Your task to perform on an android device: turn off picture-in-picture Image 0: 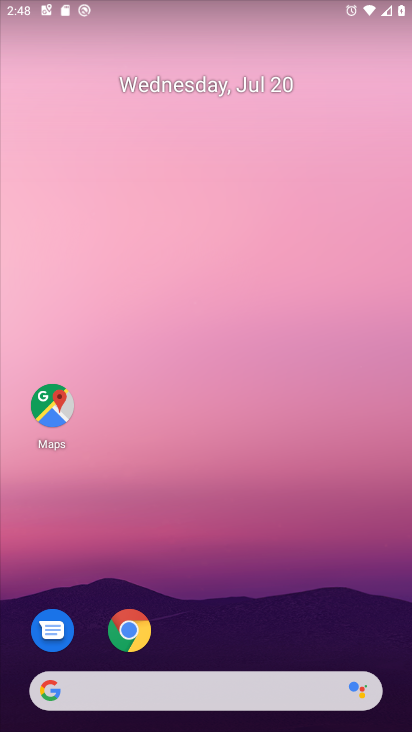
Step 0: drag from (236, 674) to (230, 156)
Your task to perform on an android device: turn off picture-in-picture Image 1: 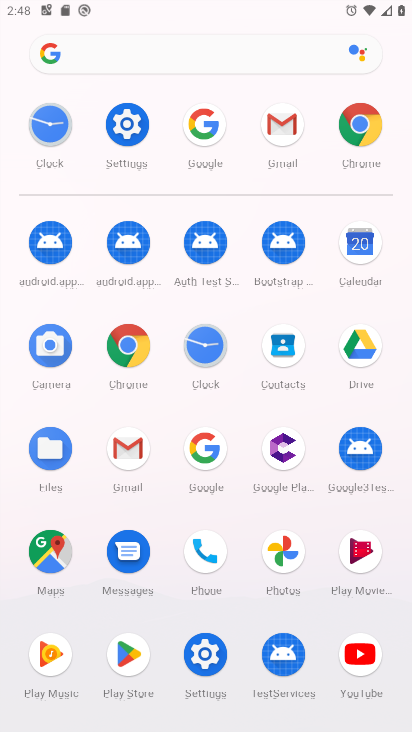
Step 1: click (124, 135)
Your task to perform on an android device: turn off picture-in-picture Image 2: 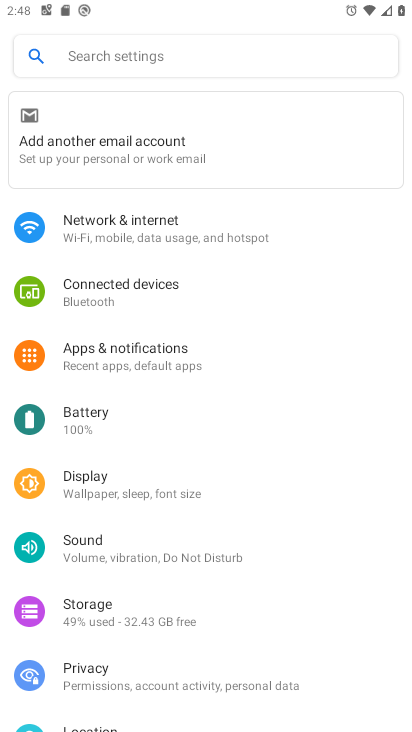
Step 2: drag from (166, 544) to (168, 349)
Your task to perform on an android device: turn off picture-in-picture Image 3: 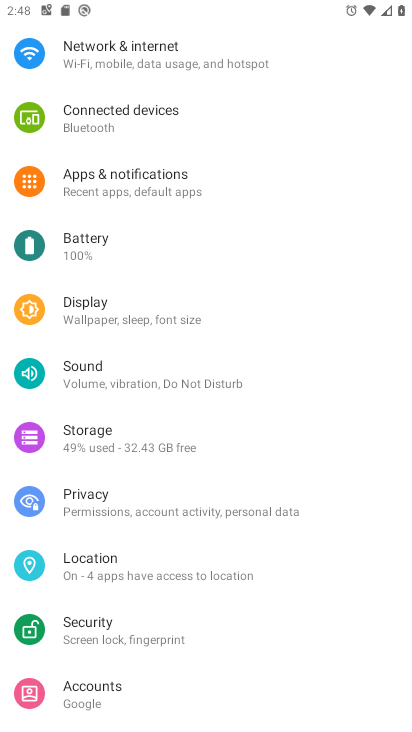
Step 3: click (164, 191)
Your task to perform on an android device: turn off picture-in-picture Image 4: 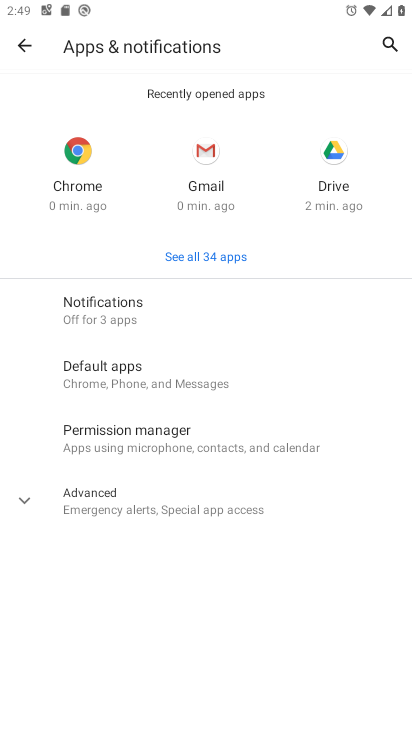
Step 4: click (205, 509)
Your task to perform on an android device: turn off picture-in-picture Image 5: 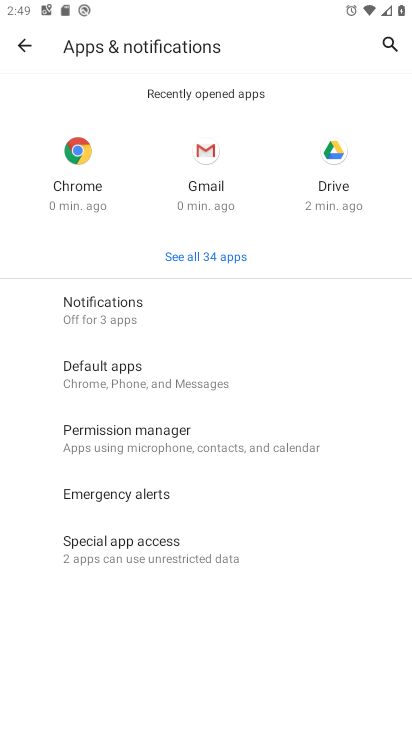
Step 5: click (150, 543)
Your task to perform on an android device: turn off picture-in-picture Image 6: 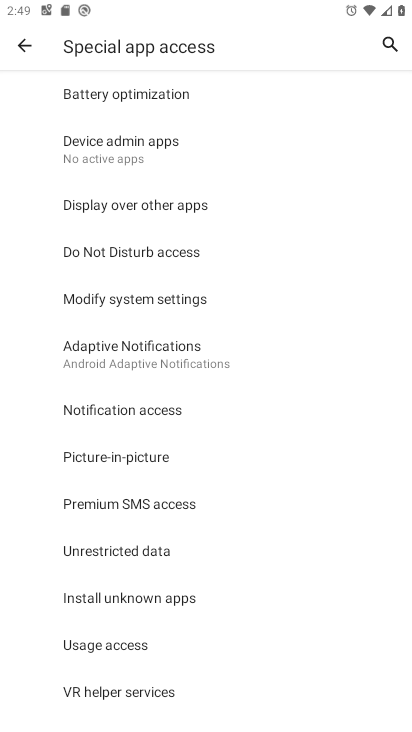
Step 6: click (138, 450)
Your task to perform on an android device: turn off picture-in-picture Image 7: 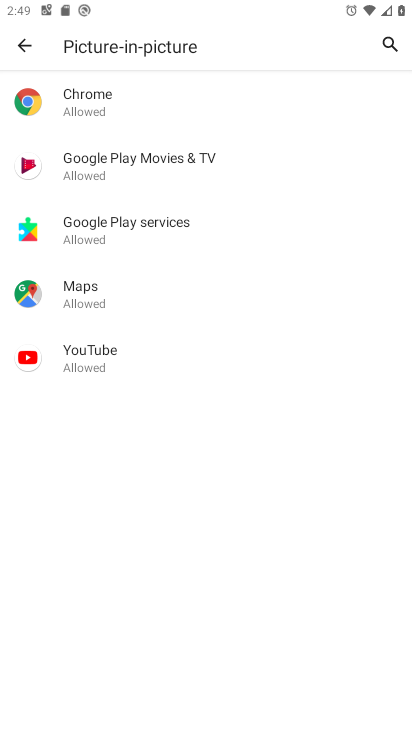
Step 7: click (115, 112)
Your task to perform on an android device: turn off picture-in-picture Image 8: 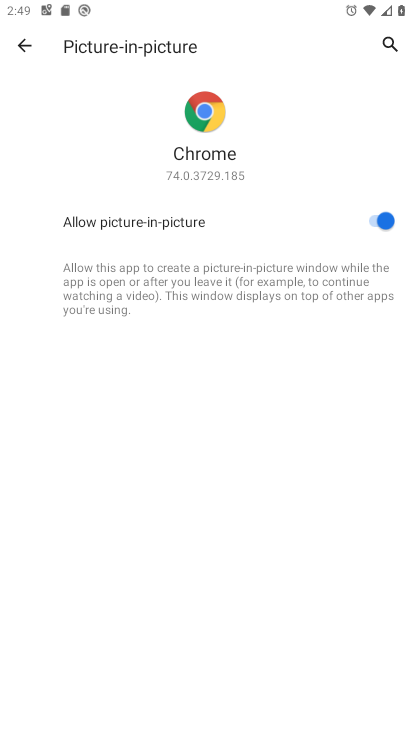
Step 8: click (369, 225)
Your task to perform on an android device: turn off picture-in-picture Image 9: 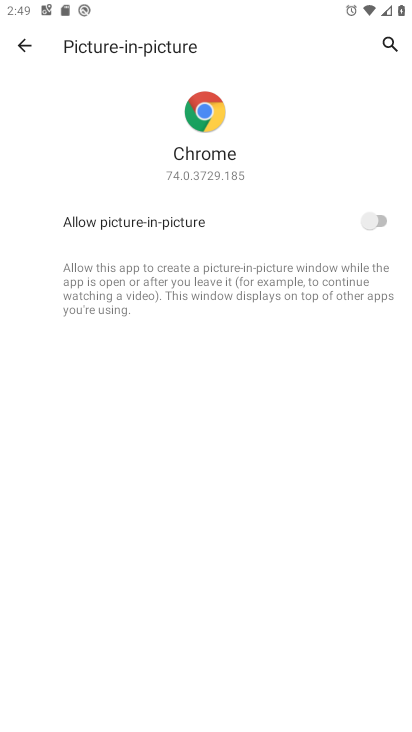
Step 9: task complete